Your task to perform on an android device: When is my next meeting? Image 0: 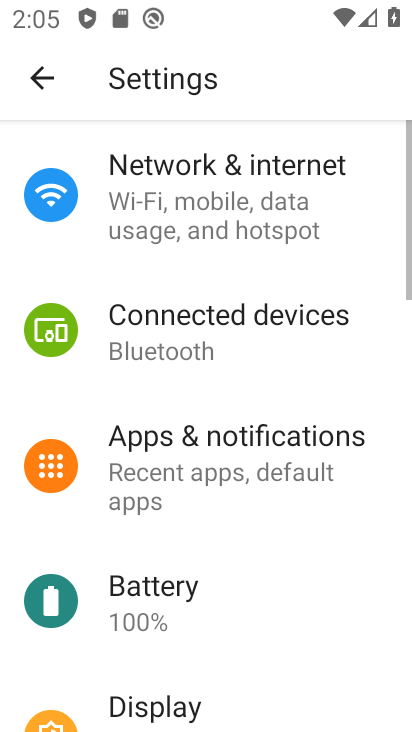
Step 0: press back button
Your task to perform on an android device: When is my next meeting? Image 1: 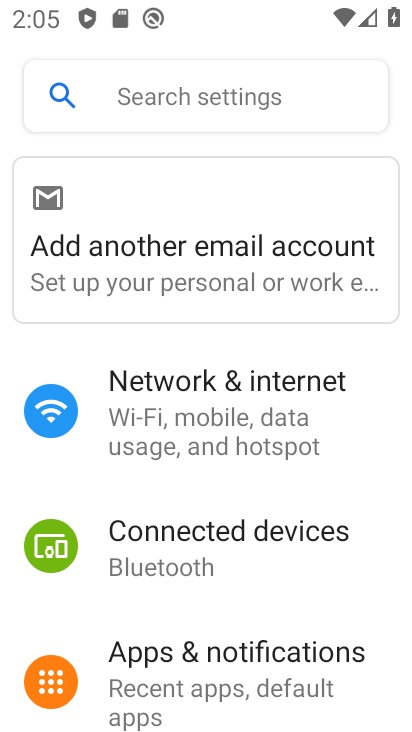
Step 1: press back button
Your task to perform on an android device: When is my next meeting? Image 2: 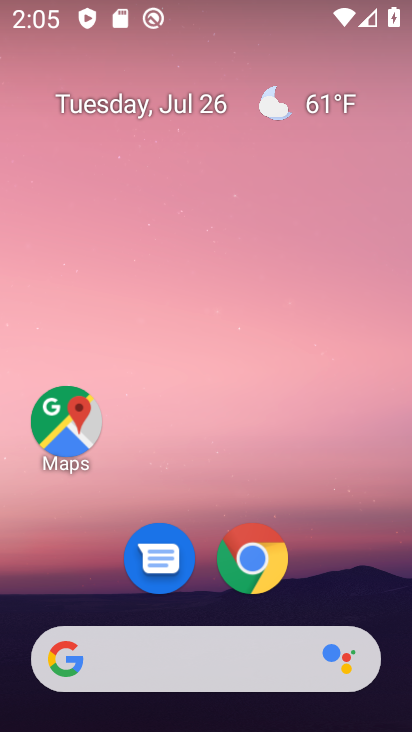
Step 2: drag from (106, 567) to (236, 41)
Your task to perform on an android device: When is my next meeting? Image 3: 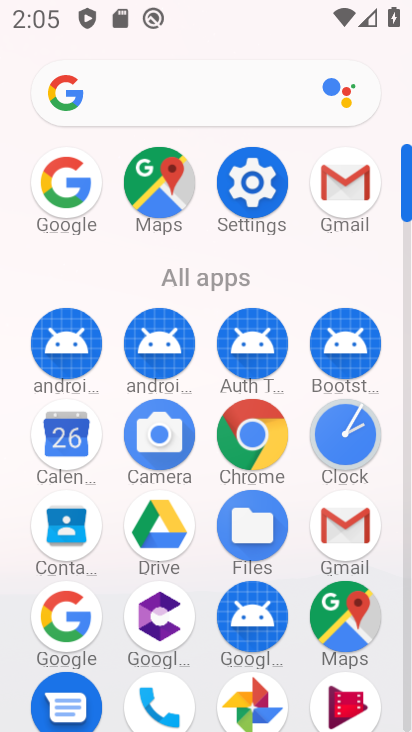
Step 3: click (66, 451)
Your task to perform on an android device: When is my next meeting? Image 4: 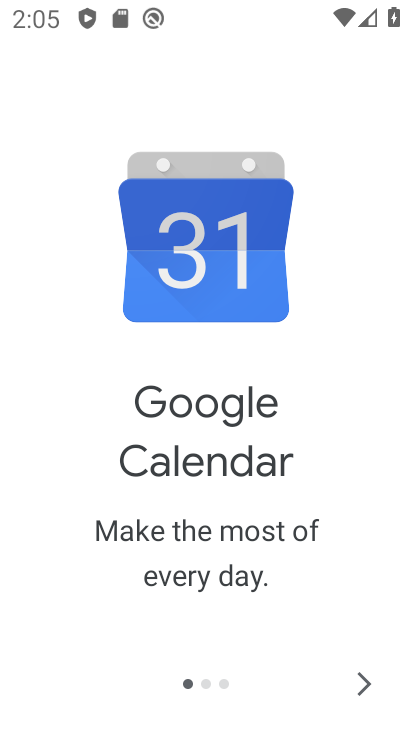
Step 4: click (359, 688)
Your task to perform on an android device: When is my next meeting? Image 5: 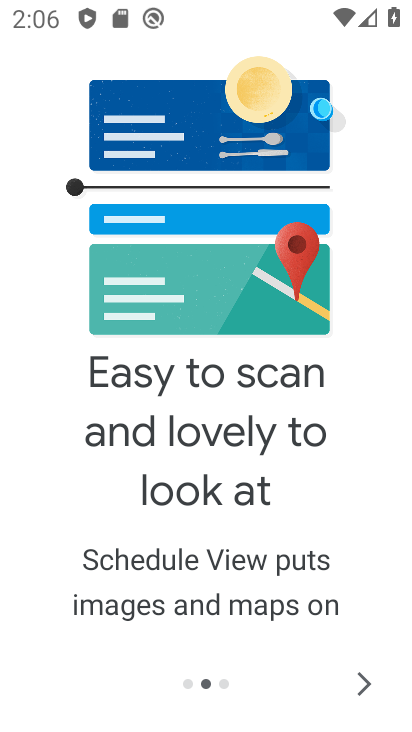
Step 5: click (369, 684)
Your task to perform on an android device: When is my next meeting? Image 6: 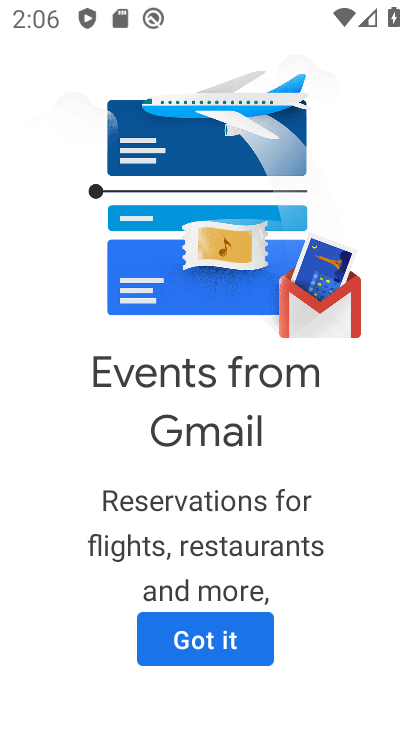
Step 6: click (218, 651)
Your task to perform on an android device: When is my next meeting? Image 7: 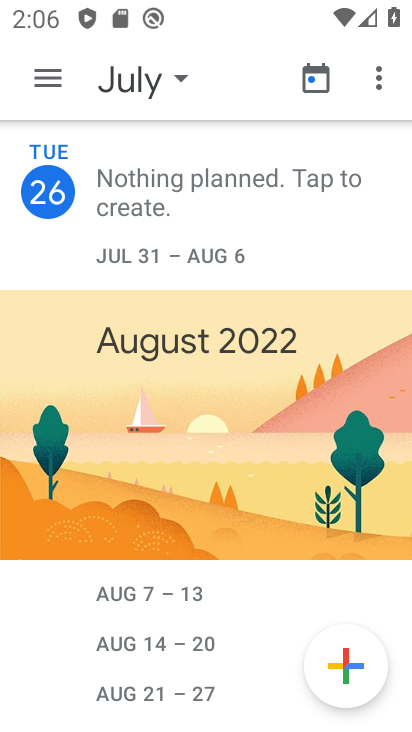
Step 7: task complete